Your task to perform on an android device: change notification settings in the gmail app Image 0: 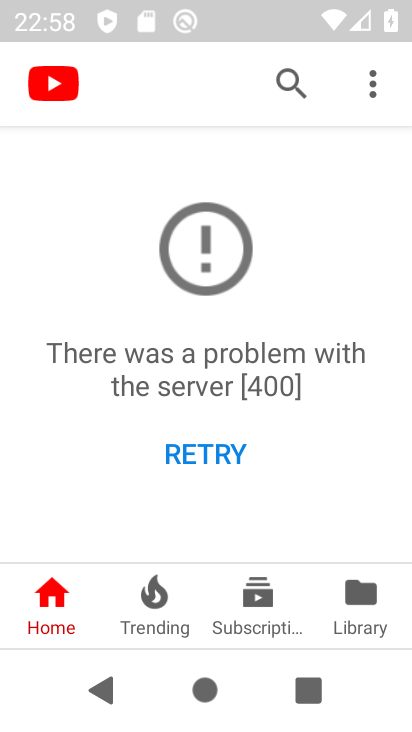
Step 0: press home button
Your task to perform on an android device: change notification settings in the gmail app Image 1: 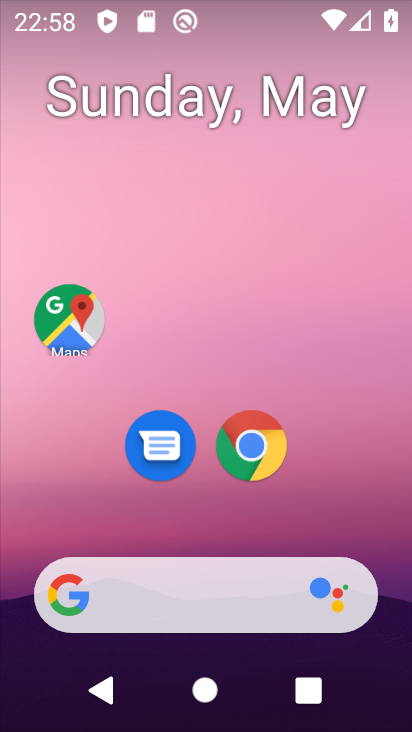
Step 1: drag from (317, 520) to (364, 41)
Your task to perform on an android device: change notification settings in the gmail app Image 2: 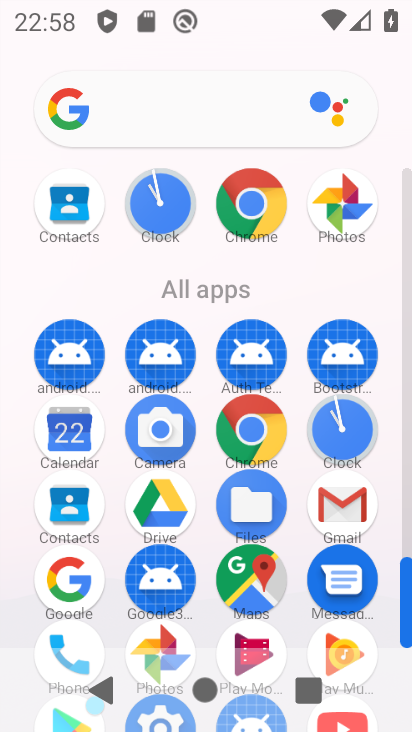
Step 2: drag from (301, 318) to (333, 24)
Your task to perform on an android device: change notification settings in the gmail app Image 3: 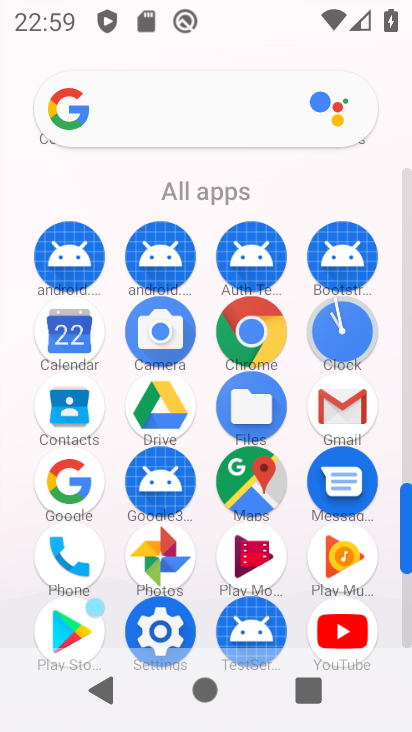
Step 3: click (345, 399)
Your task to perform on an android device: change notification settings in the gmail app Image 4: 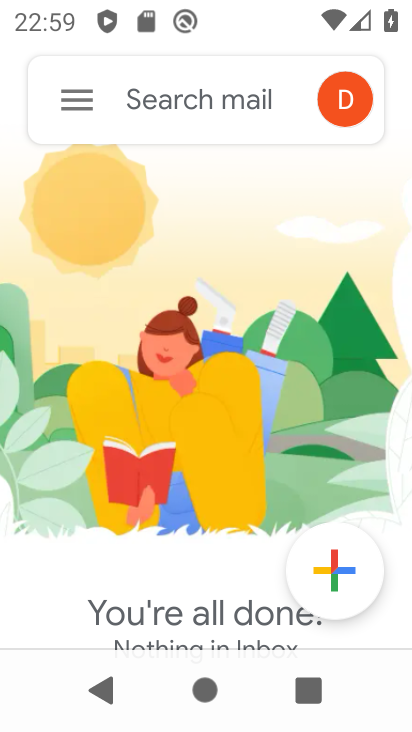
Step 4: press home button
Your task to perform on an android device: change notification settings in the gmail app Image 5: 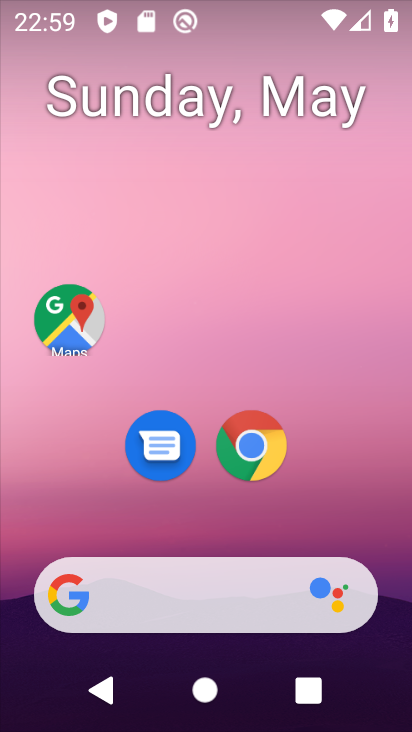
Step 5: drag from (256, 518) to (278, 31)
Your task to perform on an android device: change notification settings in the gmail app Image 6: 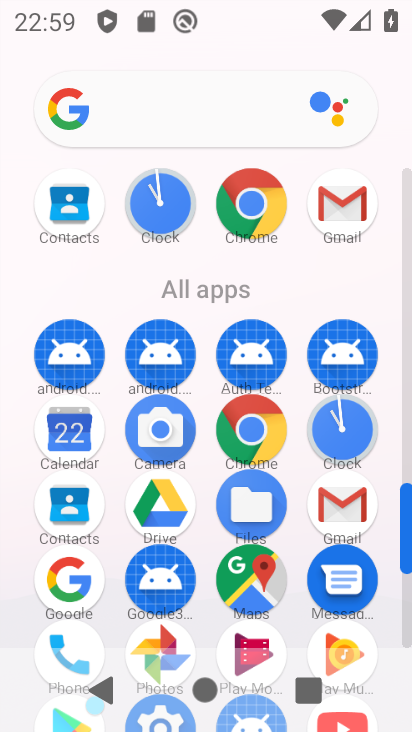
Step 6: click (339, 500)
Your task to perform on an android device: change notification settings in the gmail app Image 7: 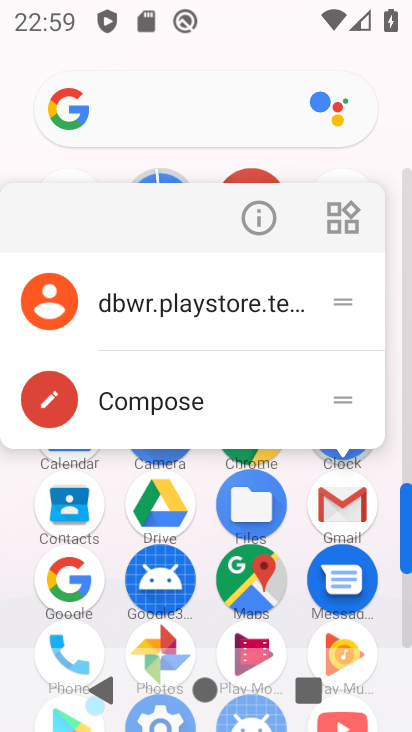
Step 7: click (257, 215)
Your task to perform on an android device: change notification settings in the gmail app Image 8: 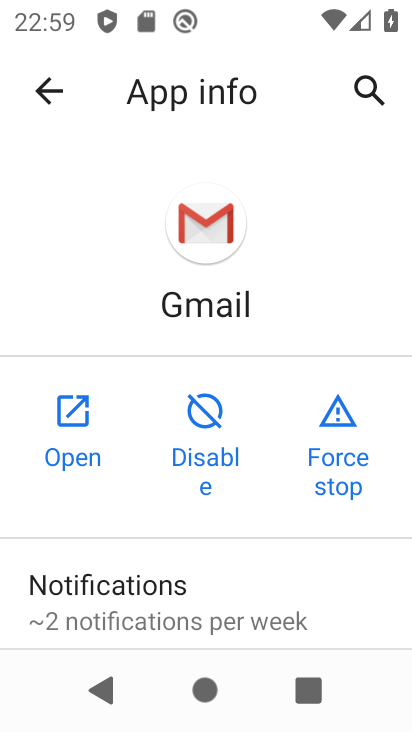
Step 8: click (107, 590)
Your task to perform on an android device: change notification settings in the gmail app Image 9: 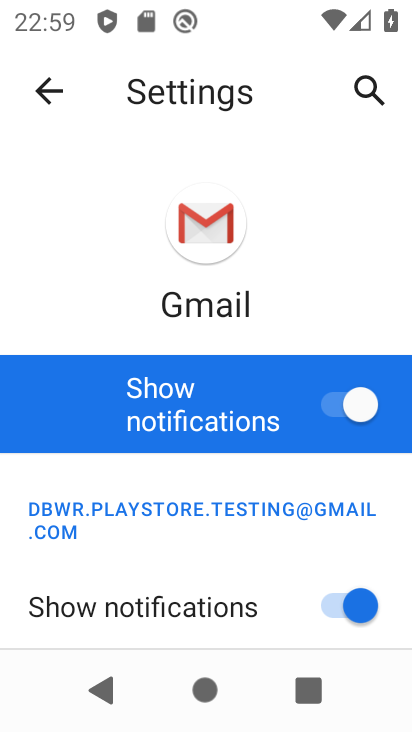
Step 9: click (355, 392)
Your task to perform on an android device: change notification settings in the gmail app Image 10: 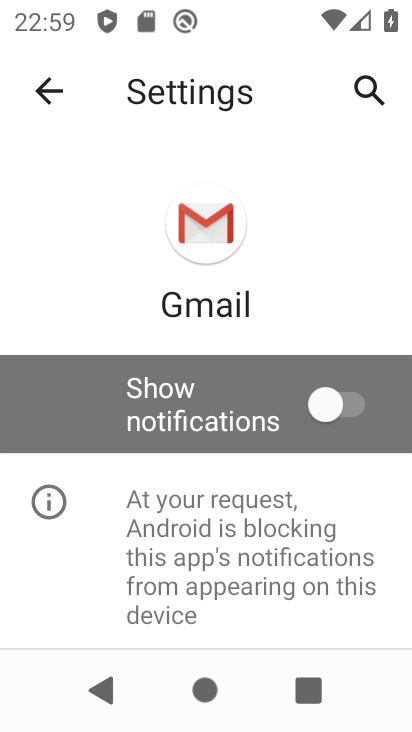
Step 10: task complete